Your task to perform on an android device: change keyboard looks Image 0: 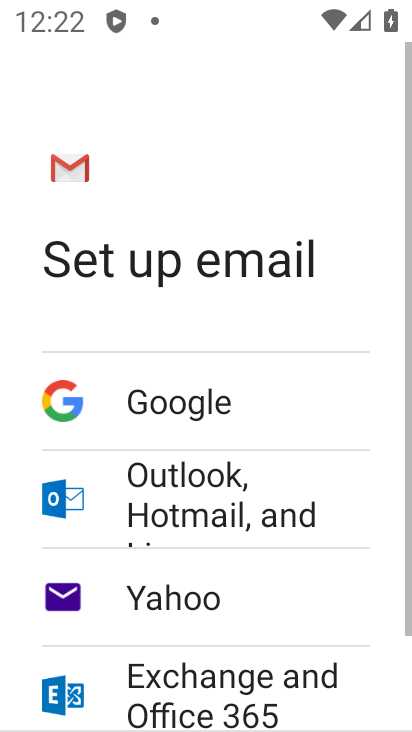
Step 0: press home button
Your task to perform on an android device: change keyboard looks Image 1: 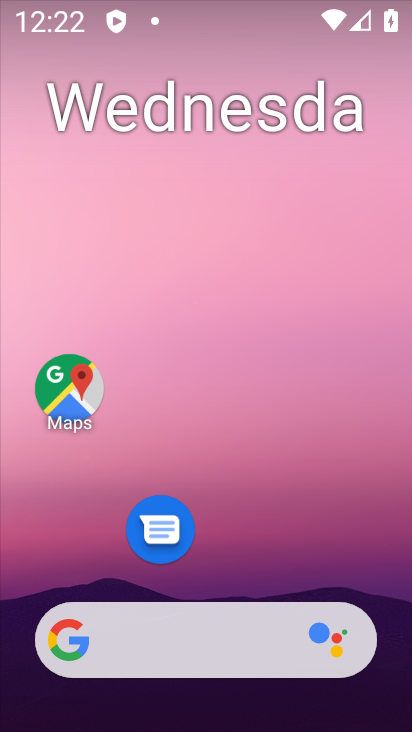
Step 1: drag from (211, 593) to (381, 431)
Your task to perform on an android device: change keyboard looks Image 2: 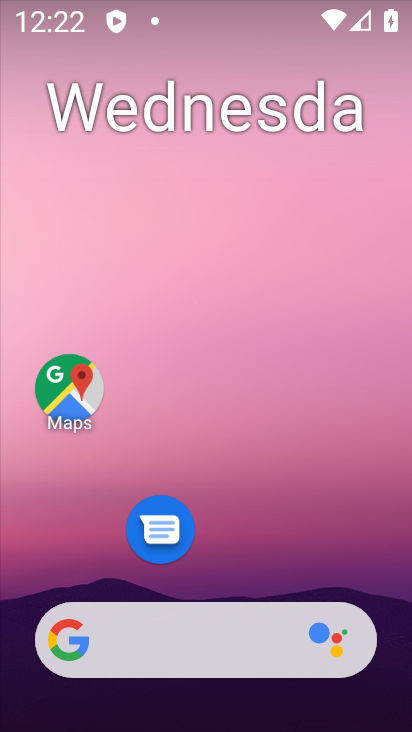
Step 2: drag from (226, 596) to (303, 4)
Your task to perform on an android device: change keyboard looks Image 3: 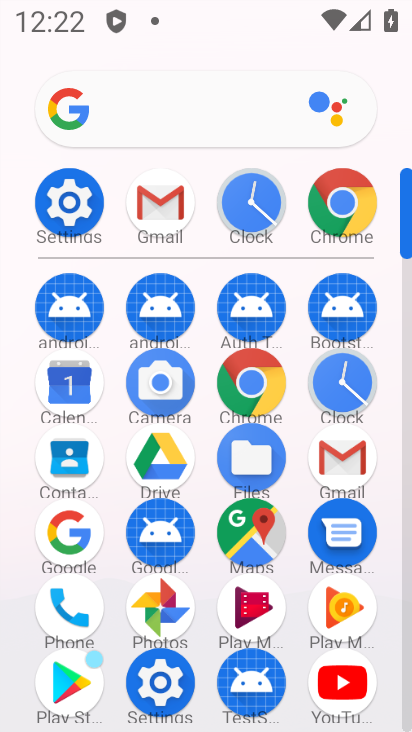
Step 3: click (72, 196)
Your task to perform on an android device: change keyboard looks Image 4: 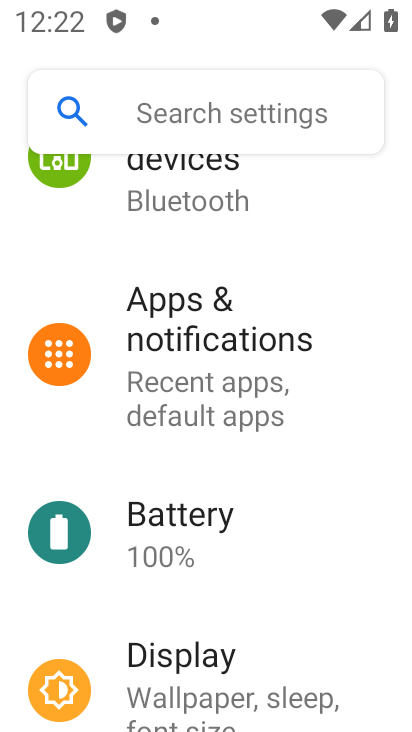
Step 4: drag from (195, 599) to (127, 155)
Your task to perform on an android device: change keyboard looks Image 5: 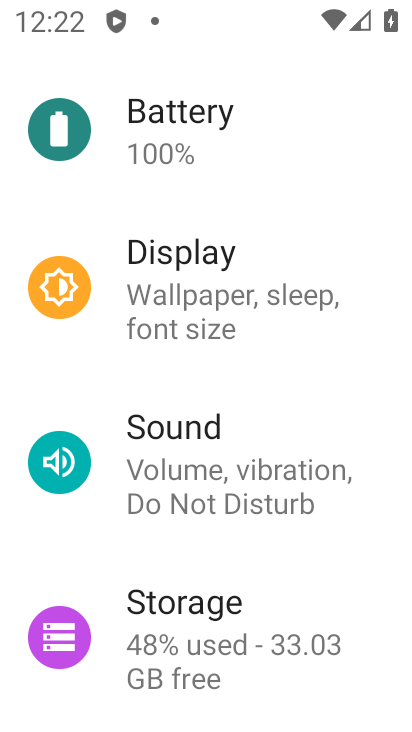
Step 5: drag from (177, 588) to (136, 142)
Your task to perform on an android device: change keyboard looks Image 6: 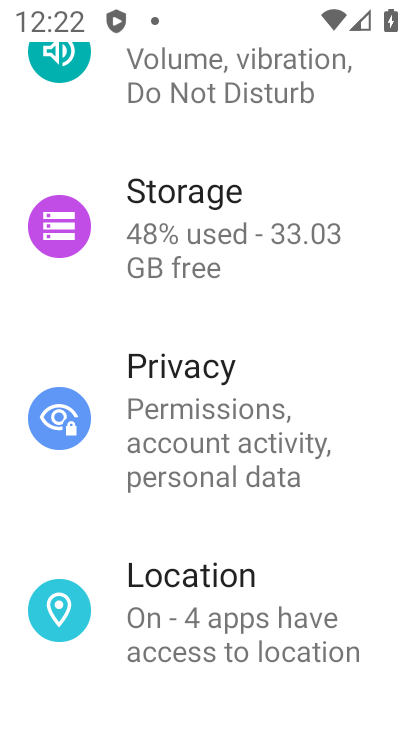
Step 6: drag from (208, 528) to (187, 182)
Your task to perform on an android device: change keyboard looks Image 7: 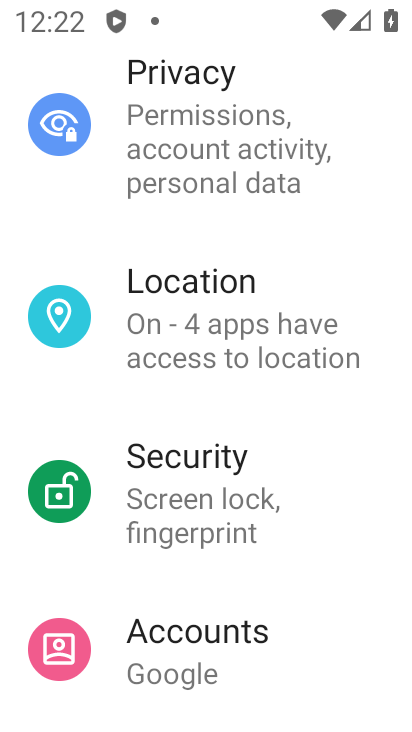
Step 7: drag from (229, 597) to (165, 19)
Your task to perform on an android device: change keyboard looks Image 8: 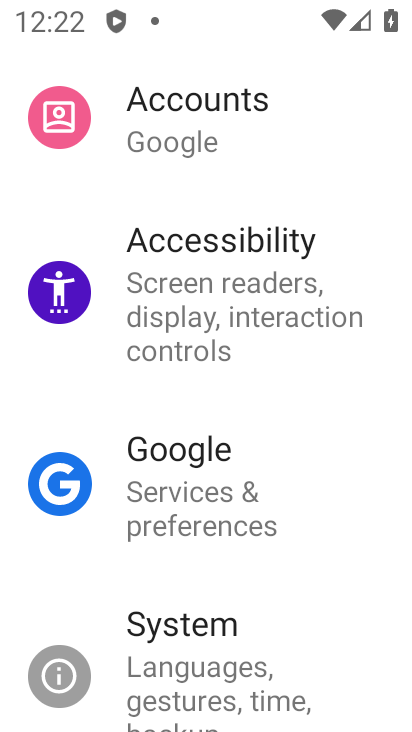
Step 8: click (227, 644)
Your task to perform on an android device: change keyboard looks Image 9: 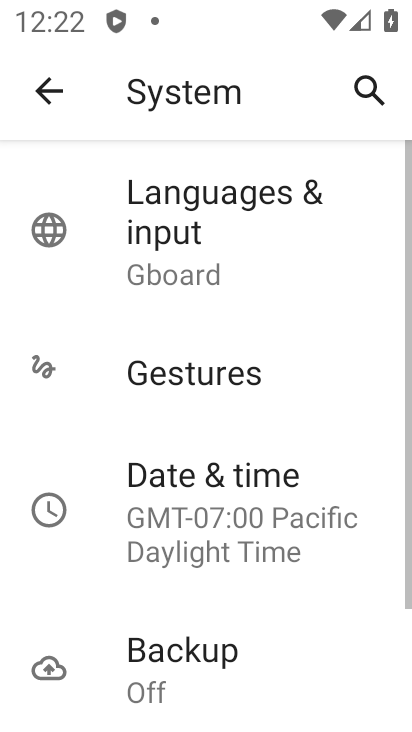
Step 9: click (169, 208)
Your task to perform on an android device: change keyboard looks Image 10: 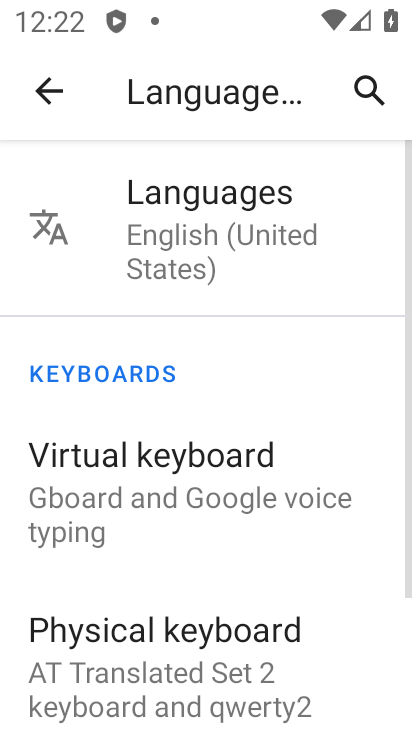
Step 10: click (102, 465)
Your task to perform on an android device: change keyboard looks Image 11: 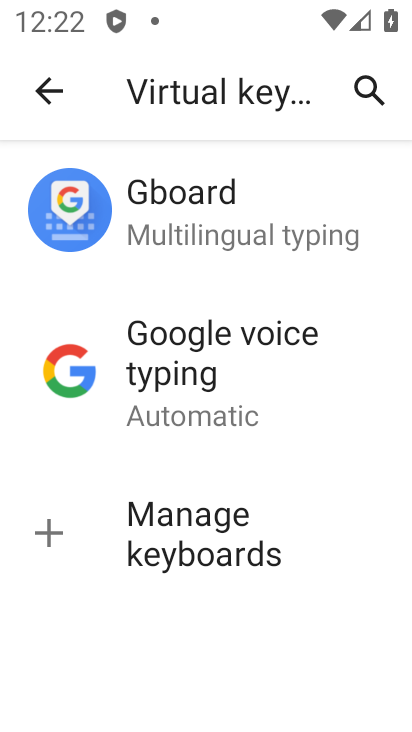
Step 11: click (197, 248)
Your task to perform on an android device: change keyboard looks Image 12: 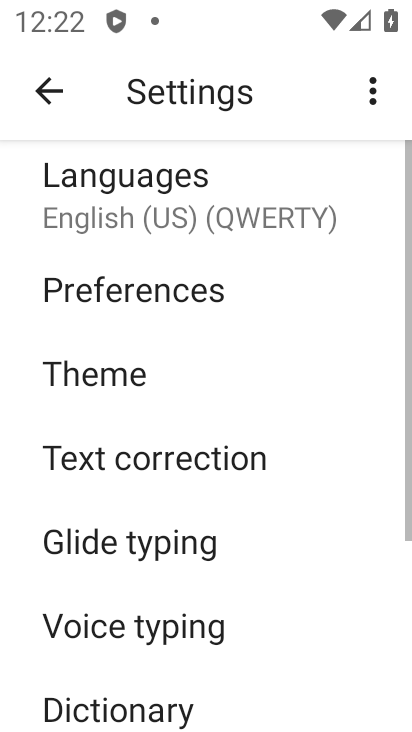
Step 12: click (118, 348)
Your task to perform on an android device: change keyboard looks Image 13: 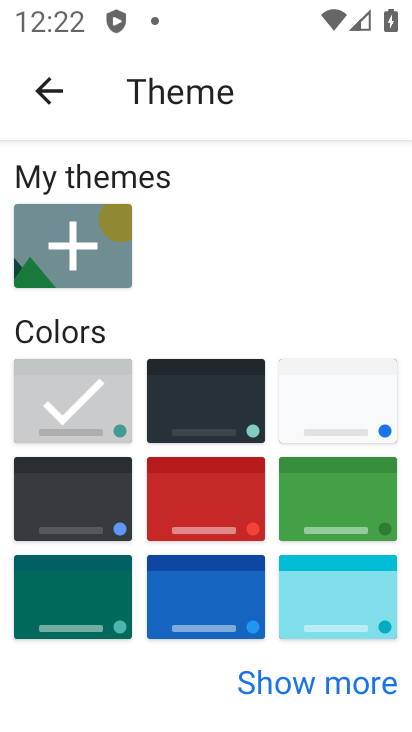
Step 13: click (170, 361)
Your task to perform on an android device: change keyboard looks Image 14: 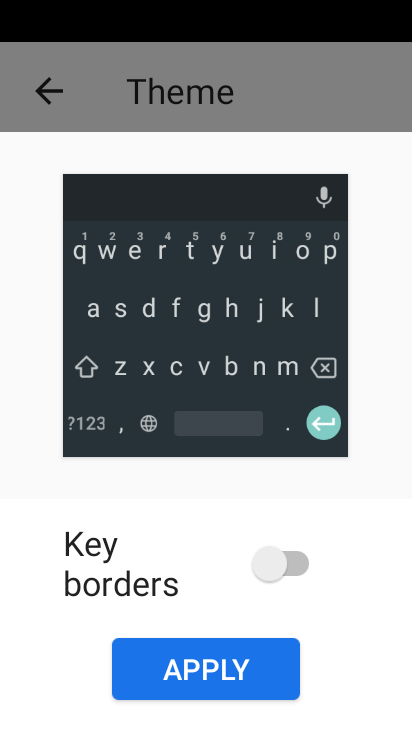
Step 14: click (275, 662)
Your task to perform on an android device: change keyboard looks Image 15: 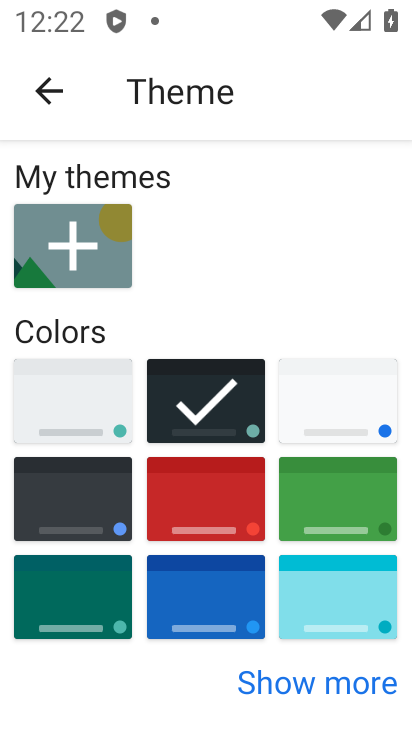
Step 15: task complete